Your task to perform on an android device: Open CNN.com Image 0: 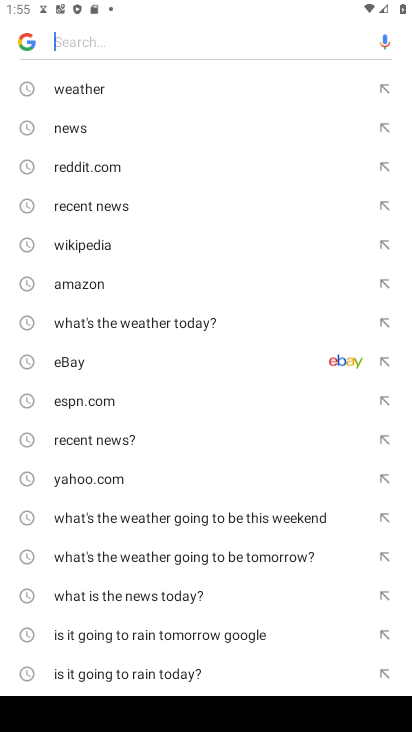
Step 0: press home button
Your task to perform on an android device: Open CNN.com Image 1: 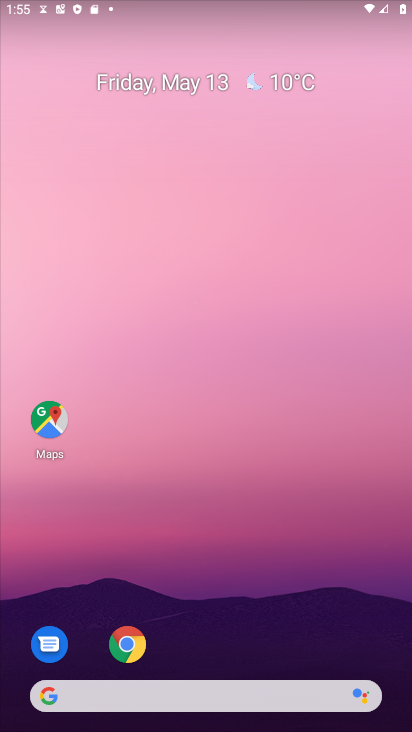
Step 1: click (126, 647)
Your task to perform on an android device: Open CNN.com Image 2: 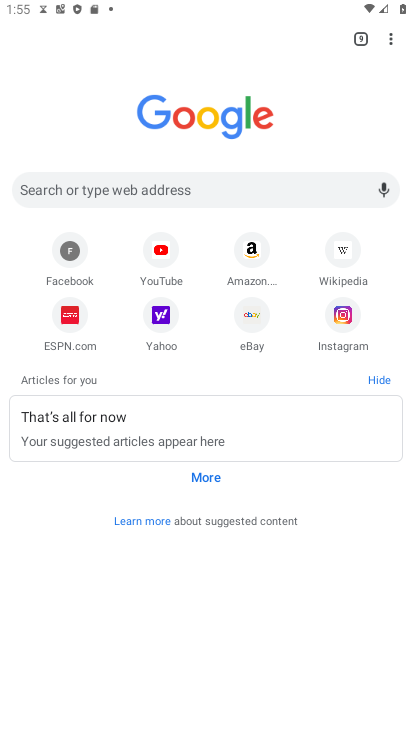
Step 2: click (226, 188)
Your task to perform on an android device: Open CNN.com Image 3: 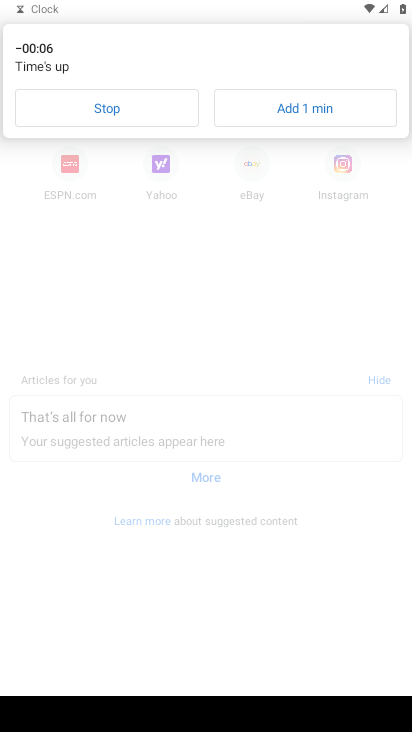
Step 3: type "CNN.com"
Your task to perform on an android device: Open CNN.com Image 4: 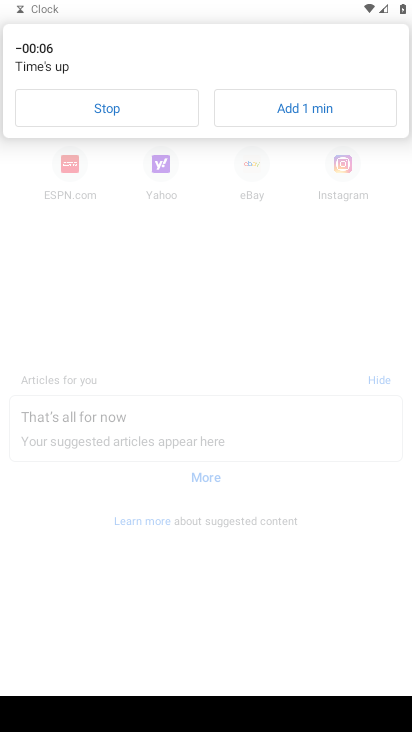
Step 4: click (142, 113)
Your task to perform on an android device: Open CNN.com Image 5: 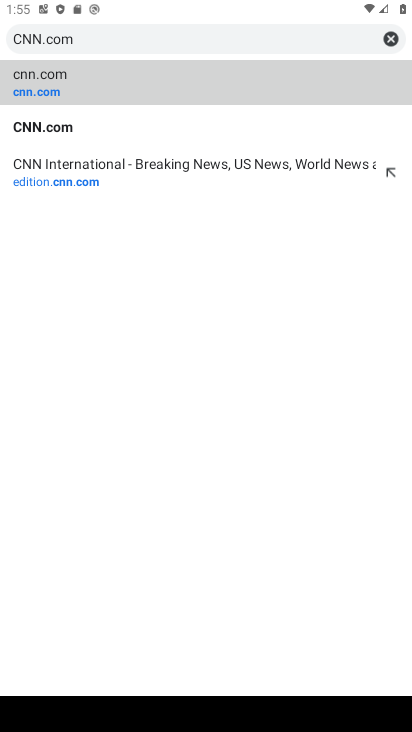
Step 5: click (53, 75)
Your task to perform on an android device: Open CNN.com Image 6: 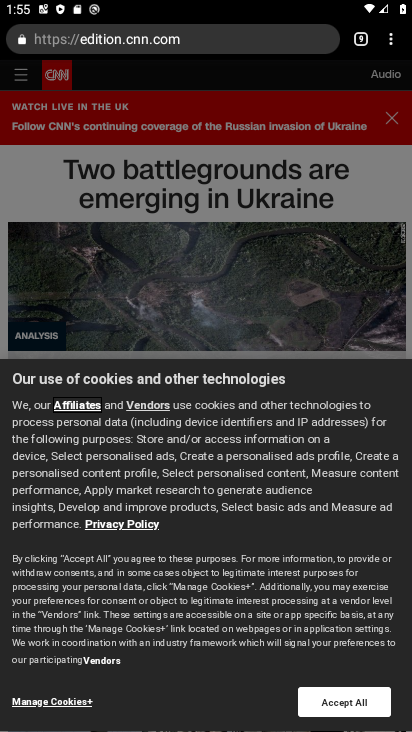
Step 6: task complete